Your task to perform on an android device: turn on sleep mode Image 0: 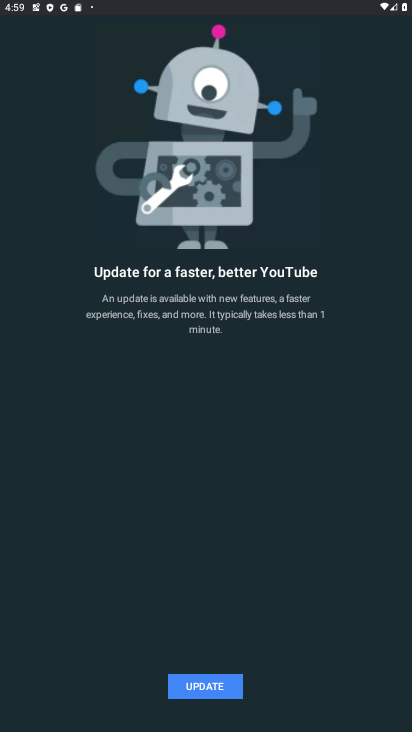
Step 0: press home button
Your task to perform on an android device: turn on sleep mode Image 1: 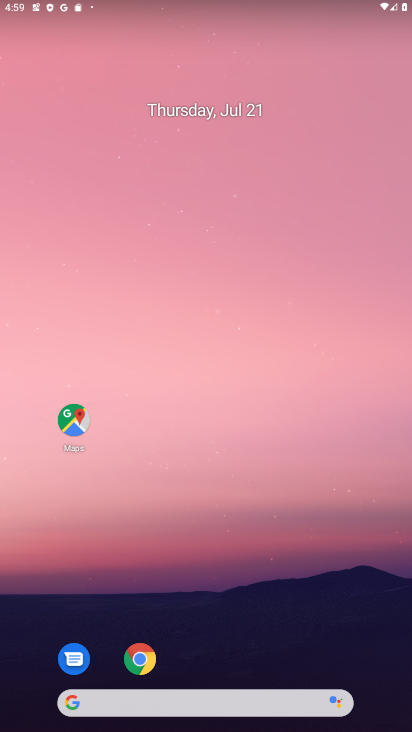
Step 1: drag from (232, 628) to (203, 54)
Your task to perform on an android device: turn on sleep mode Image 2: 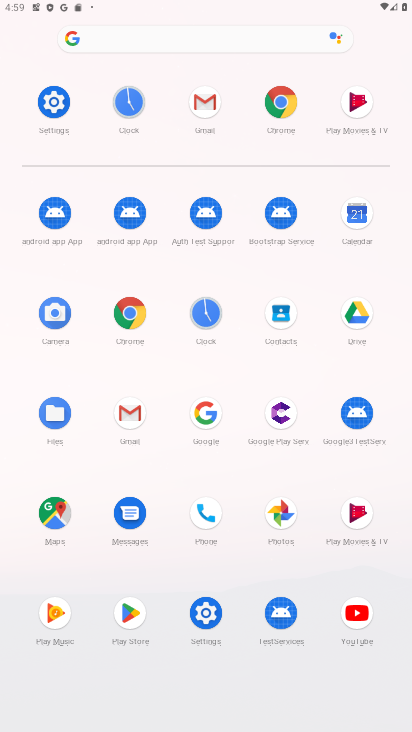
Step 2: click (52, 101)
Your task to perform on an android device: turn on sleep mode Image 3: 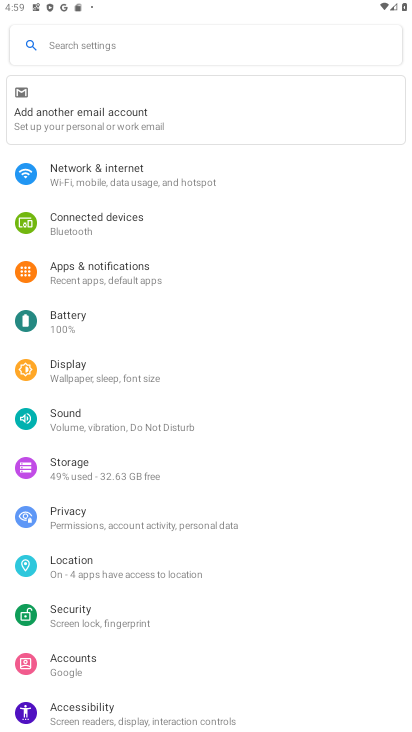
Step 3: click (69, 359)
Your task to perform on an android device: turn on sleep mode Image 4: 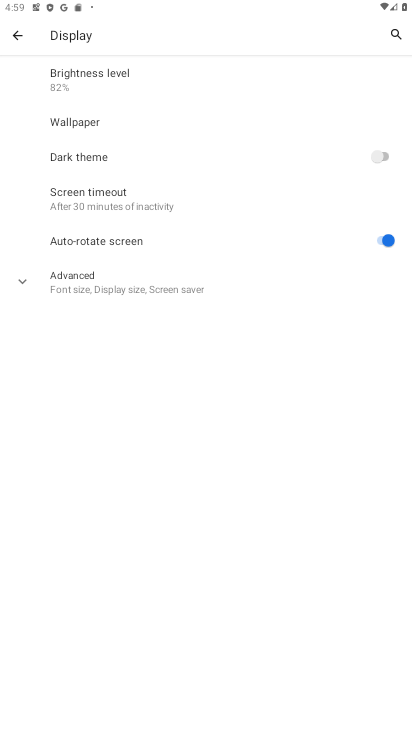
Step 4: task complete